Your task to perform on an android device: Search for pizza restaurants on Maps Image 0: 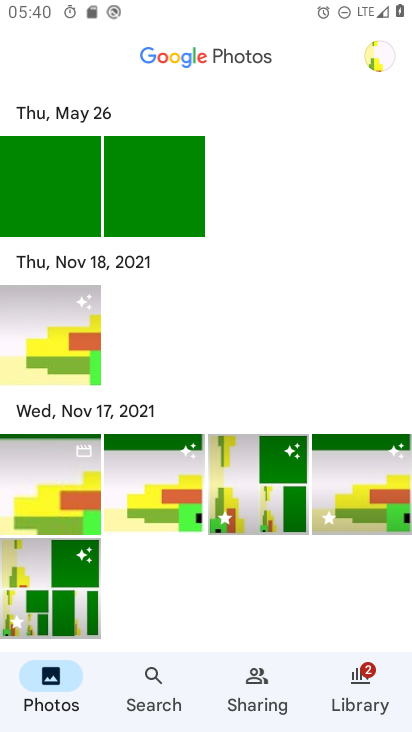
Step 0: press home button
Your task to perform on an android device: Search for pizza restaurants on Maps Image 1: 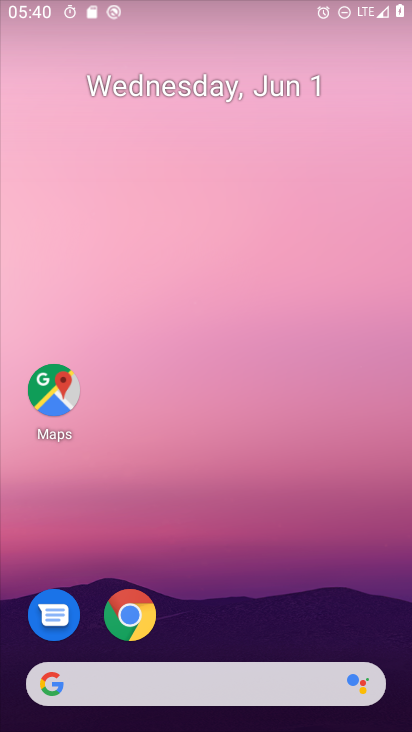
Step 1: drag from (314, 671) to (324, 32)
Your task to perform on an android device: Search for pizza restaurants on Maps Image 2: 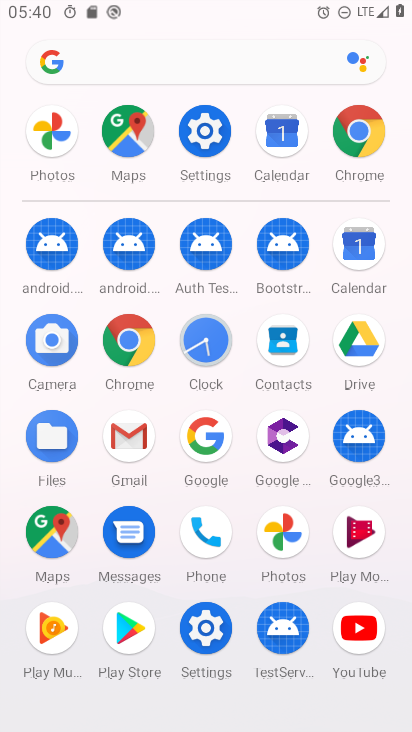
Step 2: click (38, 532)
Your task to perform on an android device: Search for pizza restaurants on Maps Image 3: 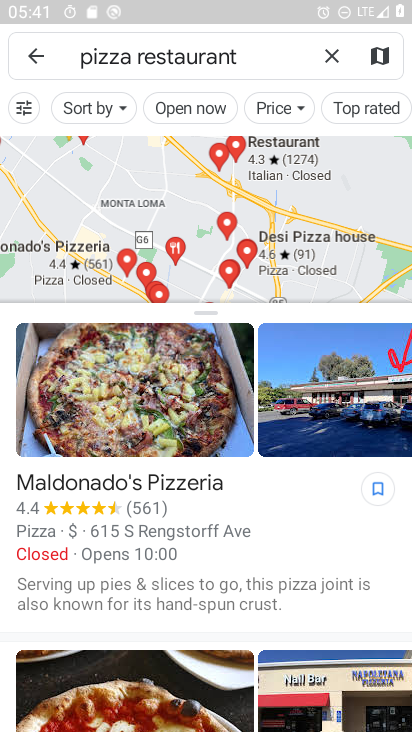
Step 3: task complete